Your task to perform on an android device: What's the weather going to be this weekend? Image 0: 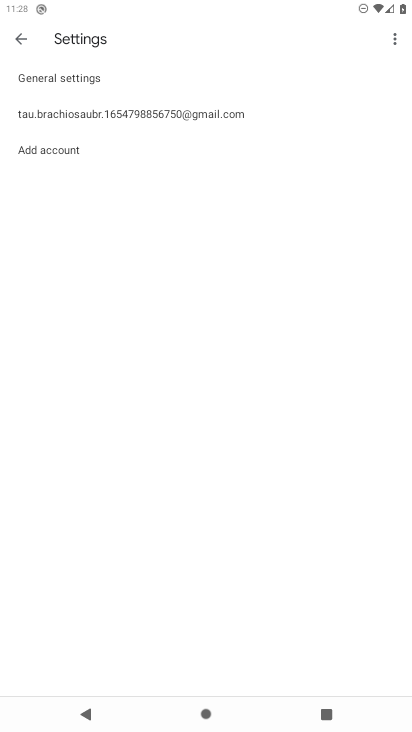
Step 0: click (83, 106)
Your task to perform on an android device: What's the weather going to be this weekend? Image 1: 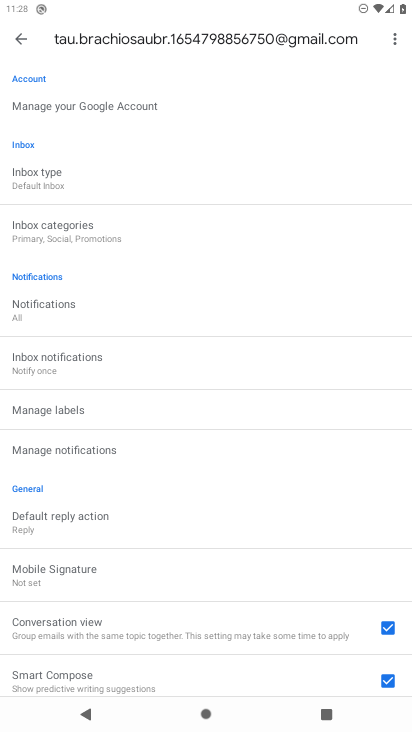
Step 1: press home button
Your task to perform on an android device: What's the weather going to be this weekend? Image 2: 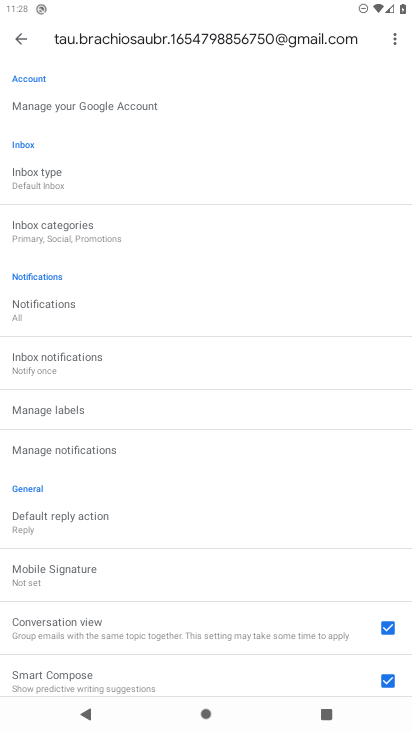
Step 2: drag from (125, 615) to (193, 209)
Your task to perform on an android device: What's the weather going to be this weekend? Image 3: 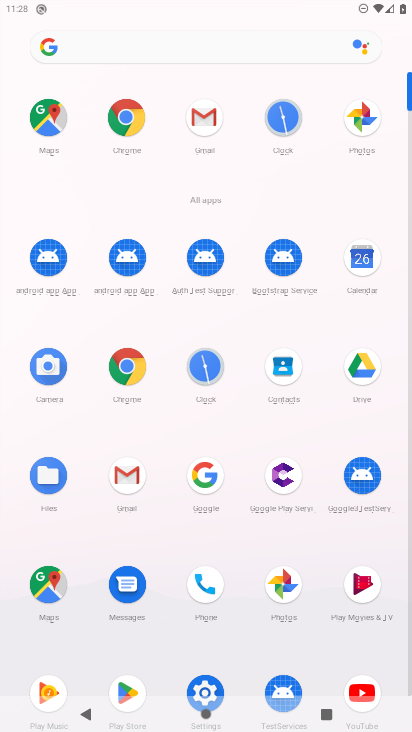
Step 3: click (171, 46)
Your task to perform on an android device: What's the weather going to be this weekend? Image 4: 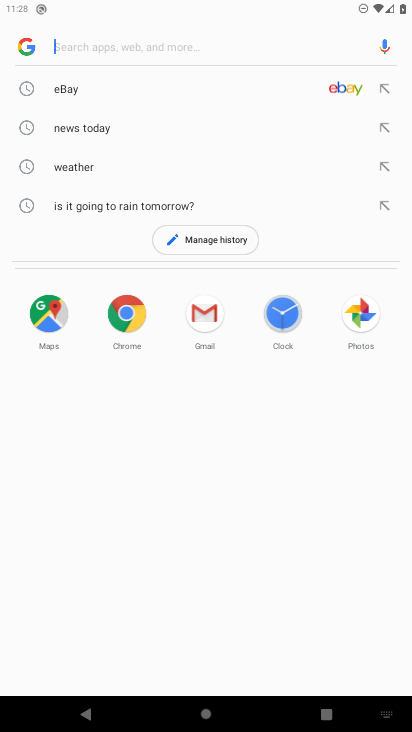
Step 4: type "What's the weather going to be this weekend?"
Your task to perform on an android device: What's the weather going to be this weekend? Image 5: 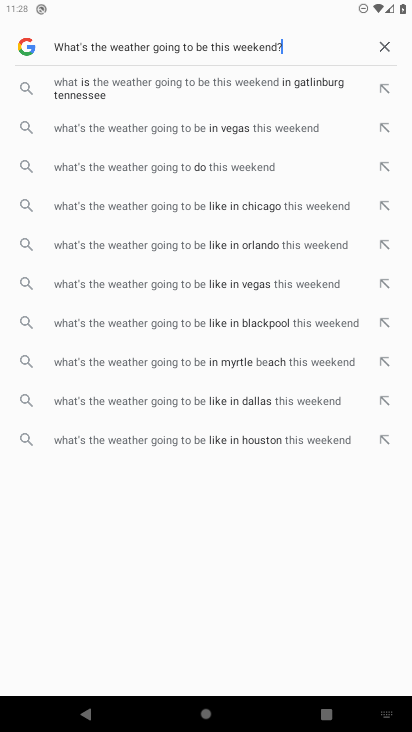
Step 5: type ""
Your task to perform on an android device: What's the weather going to be this weekend? Image 6: 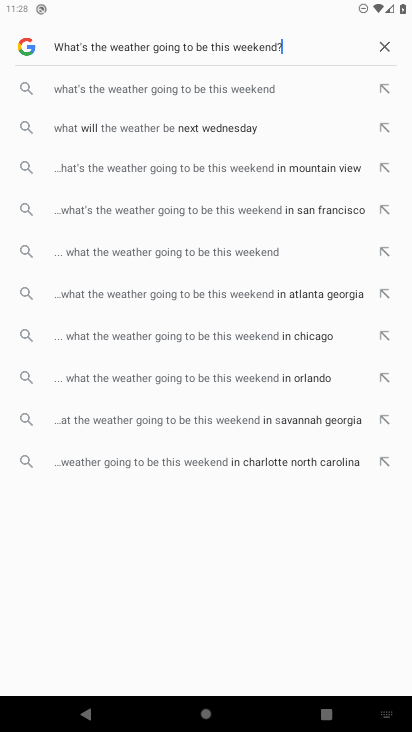
Step 6: click (165, 80)
Your task to perform on an android device: What's the weather going to be this weekend? Image 7: 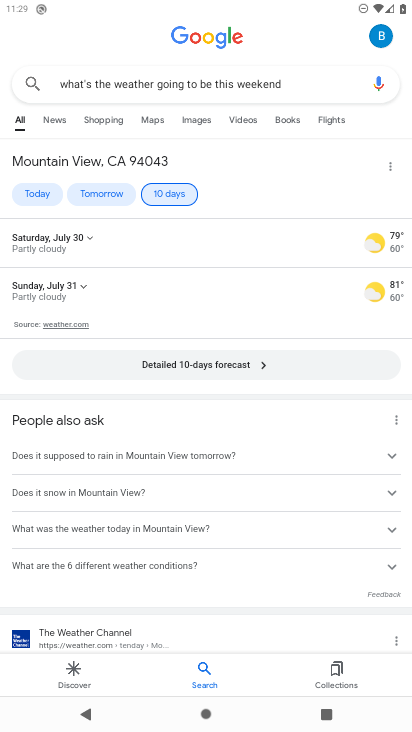
Step 7: task complete